Your task to perform on an android device: open app "Adobe Express: Graphic Design" Image 0: 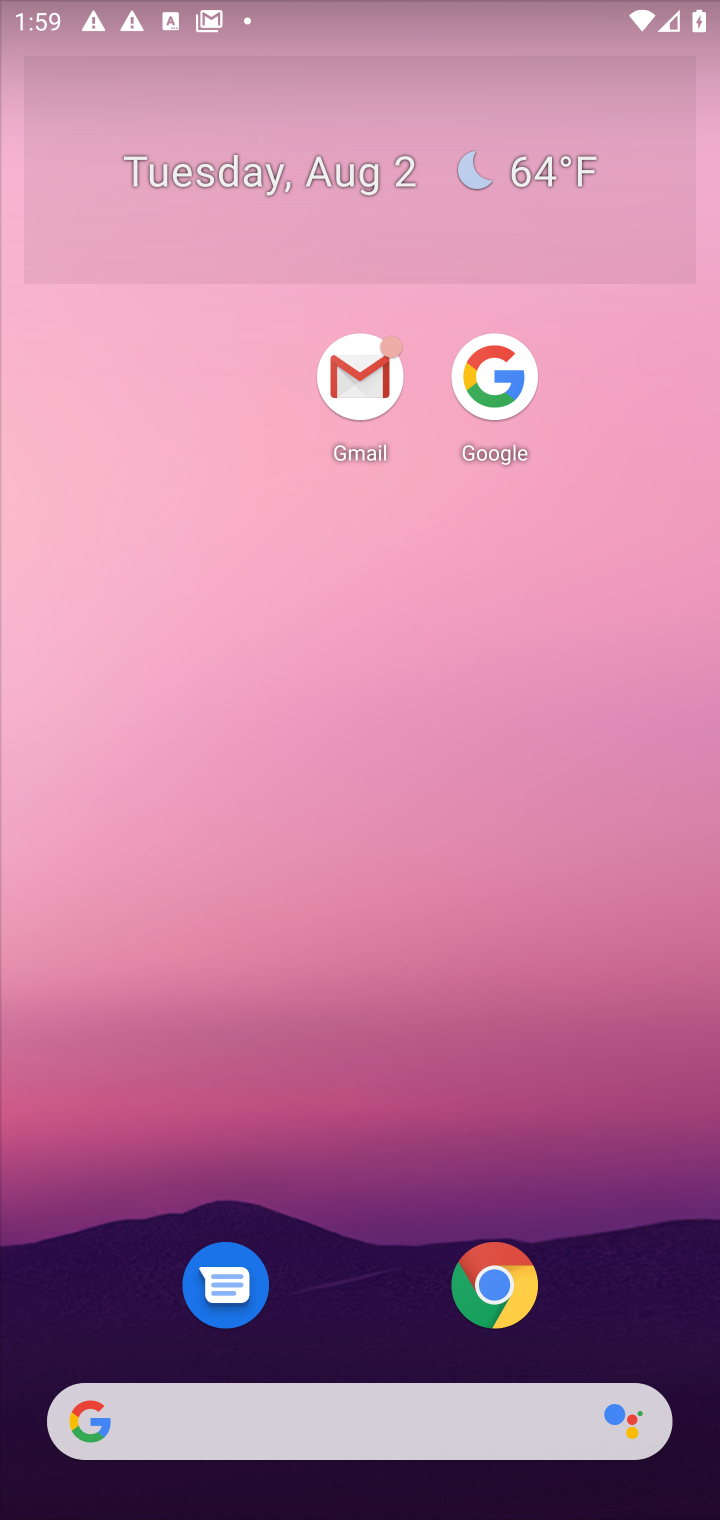
Step 0: drag from (288, 846) to (209, 187)
Your task to perform on an android device: open app "Adobe Express: Graphic Design" Image 1: 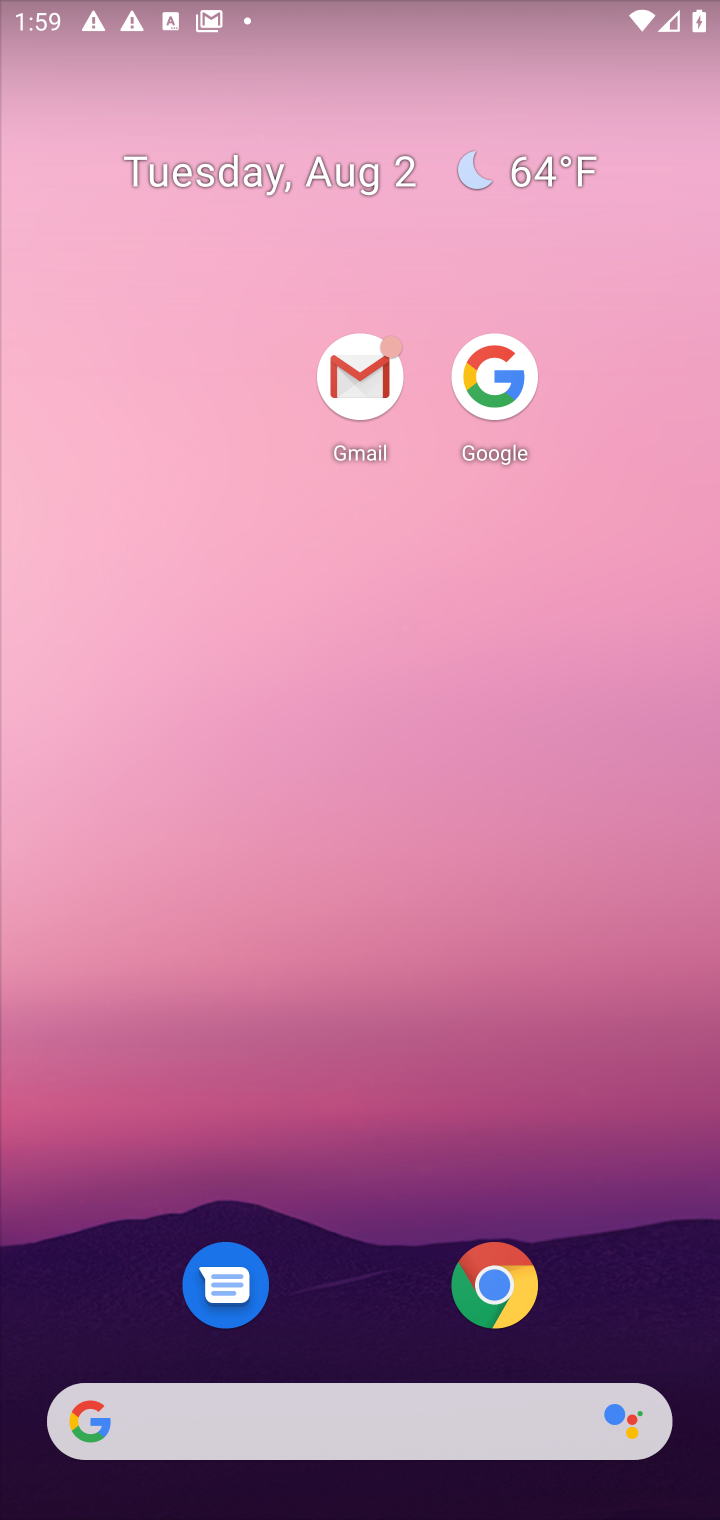
Step 1: drag from (363, 1080) to (441, 266)
Your task to perform on an android device: open app "Adobe Express: Graphic Design" Image 2: 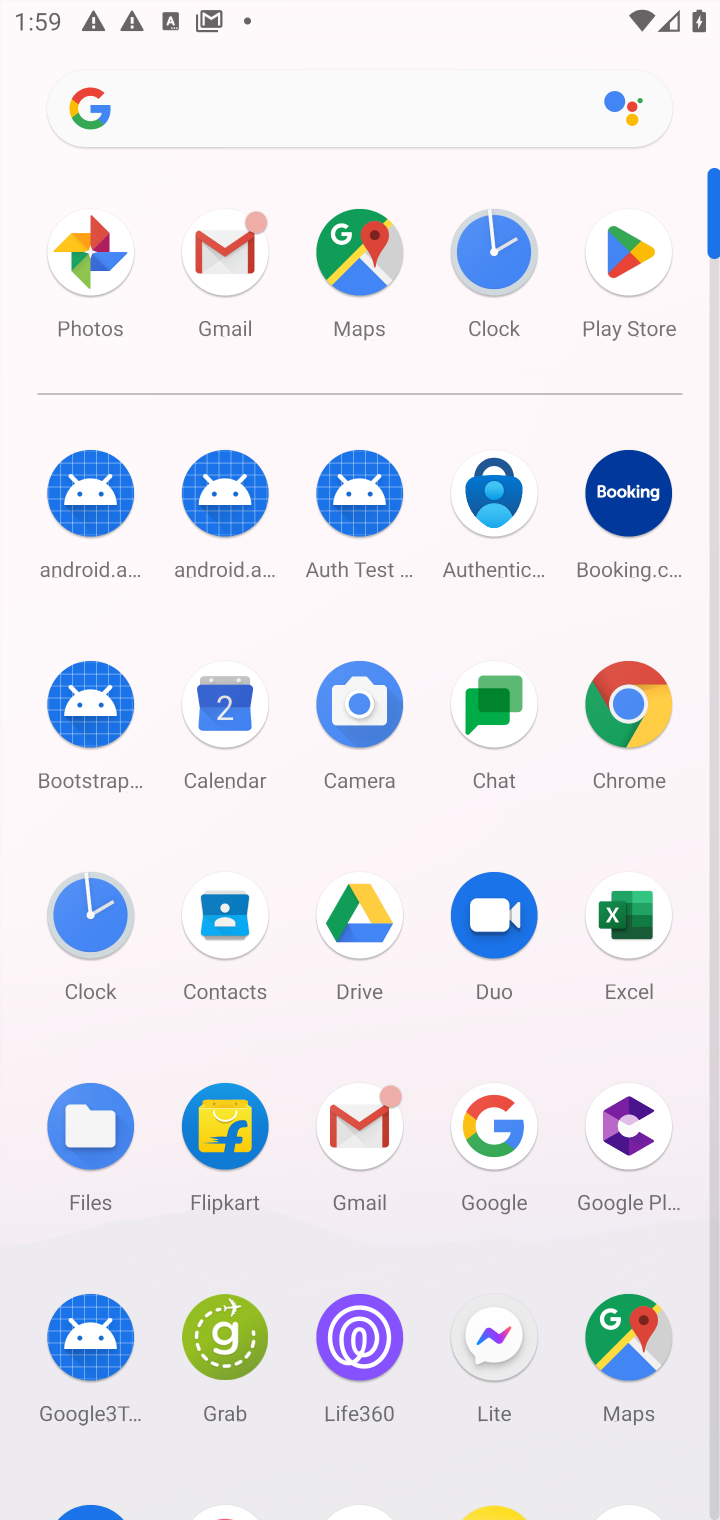
Step 2: drag from (414, 1177) to (461, 331)
Your task to perform on an android device: open app "Adobe Express: Graphic Design" Image 3: 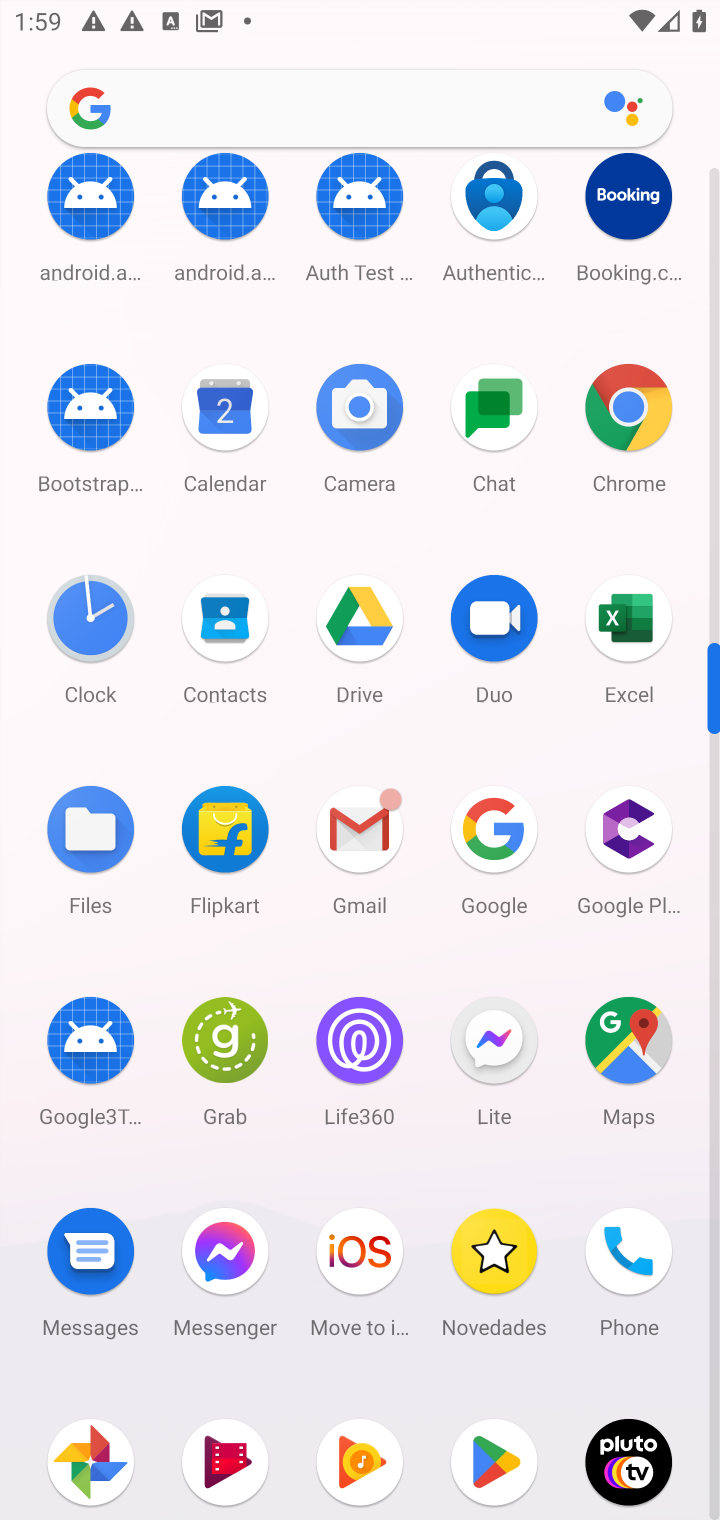
Step 3: click (476, 1470)
Your task to perform on an android device: open app "Adobe Express: Graphic Design" Image 4: 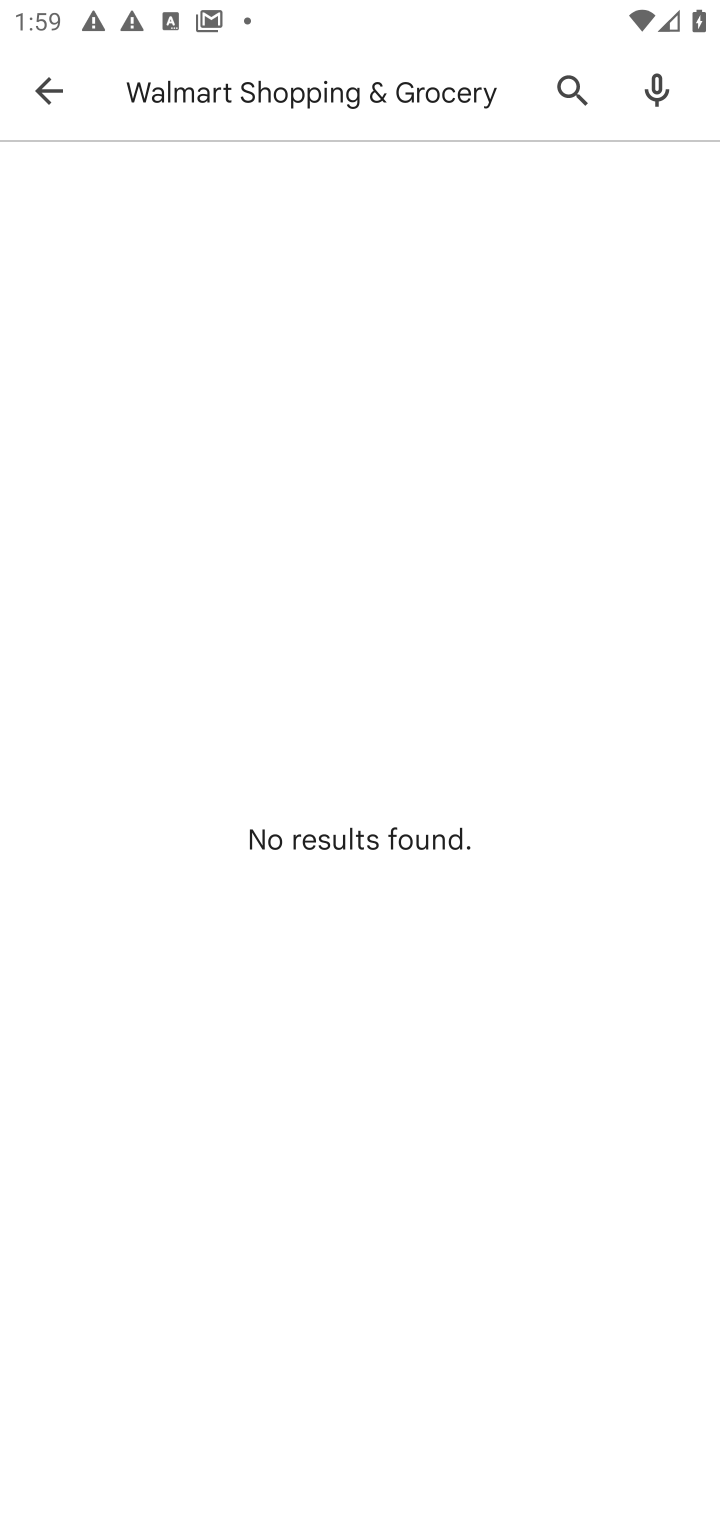
Step 4: click (470, 75)
Your task to perform on an android device: open app "Adobe Express: Graphic Design" Image 5: 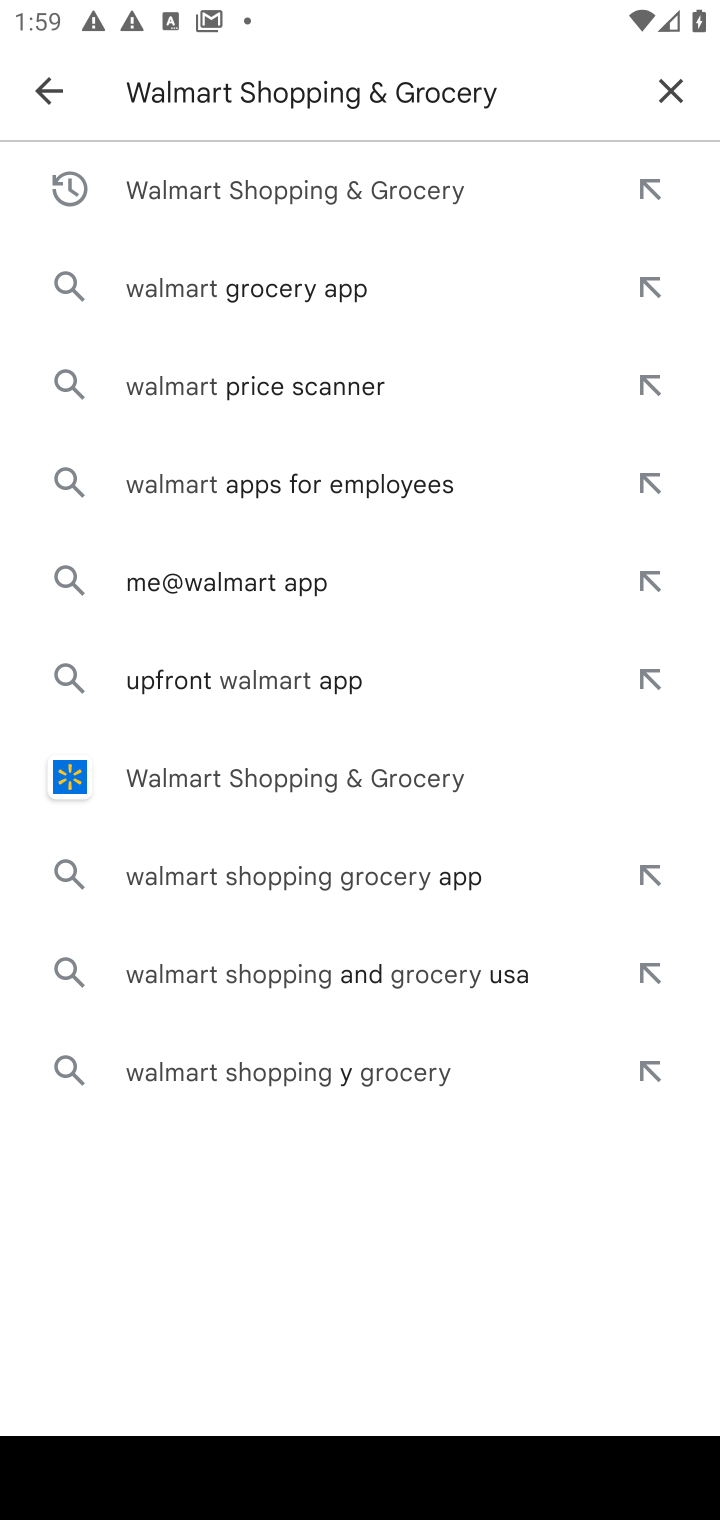
Step 5: click (686, 104)
Your task to perform on an android device: open app "Adobe Express: Graphic Design" Image 6: 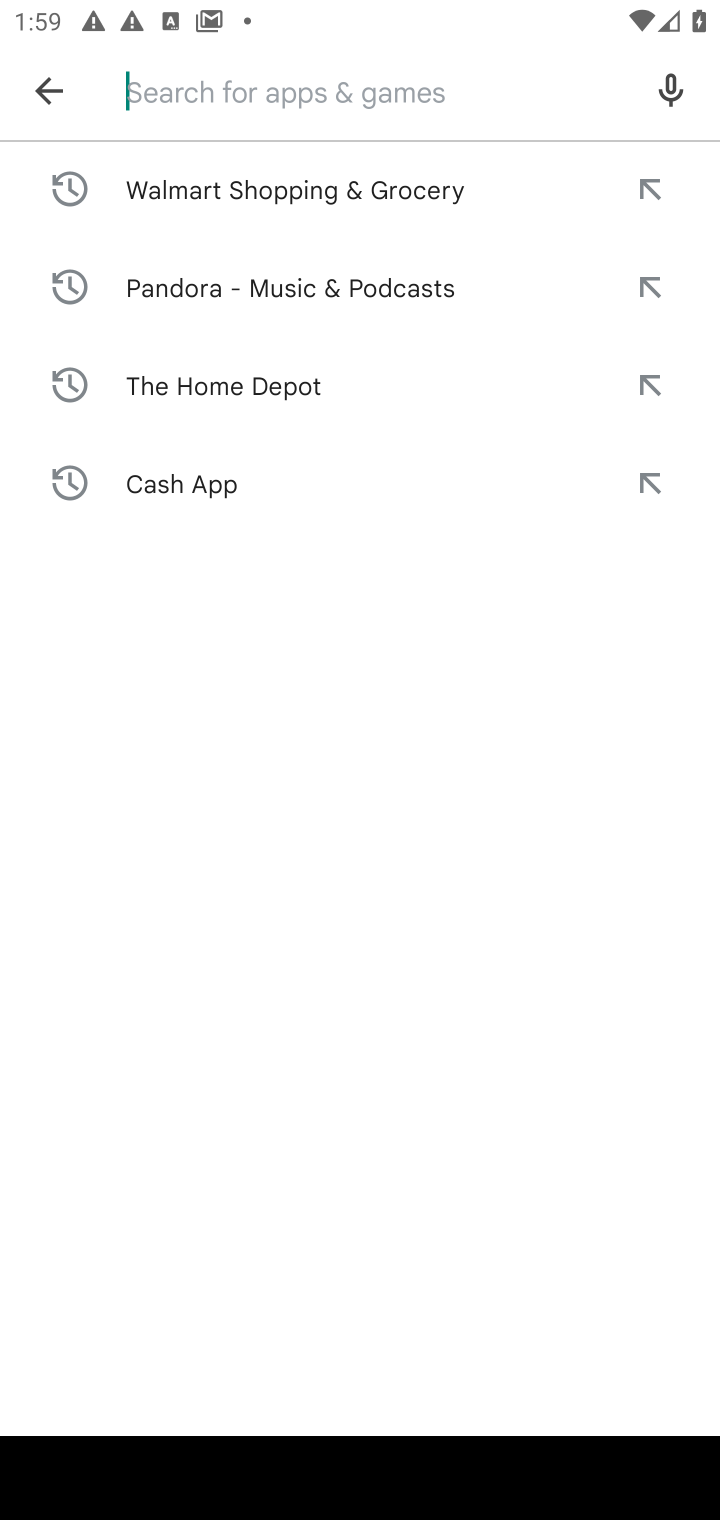
Step 6: type "Adobe Express: Graphic Design"
Your task to perform on an android device: open app "Adobe Express: Graphic Design" Image 7: 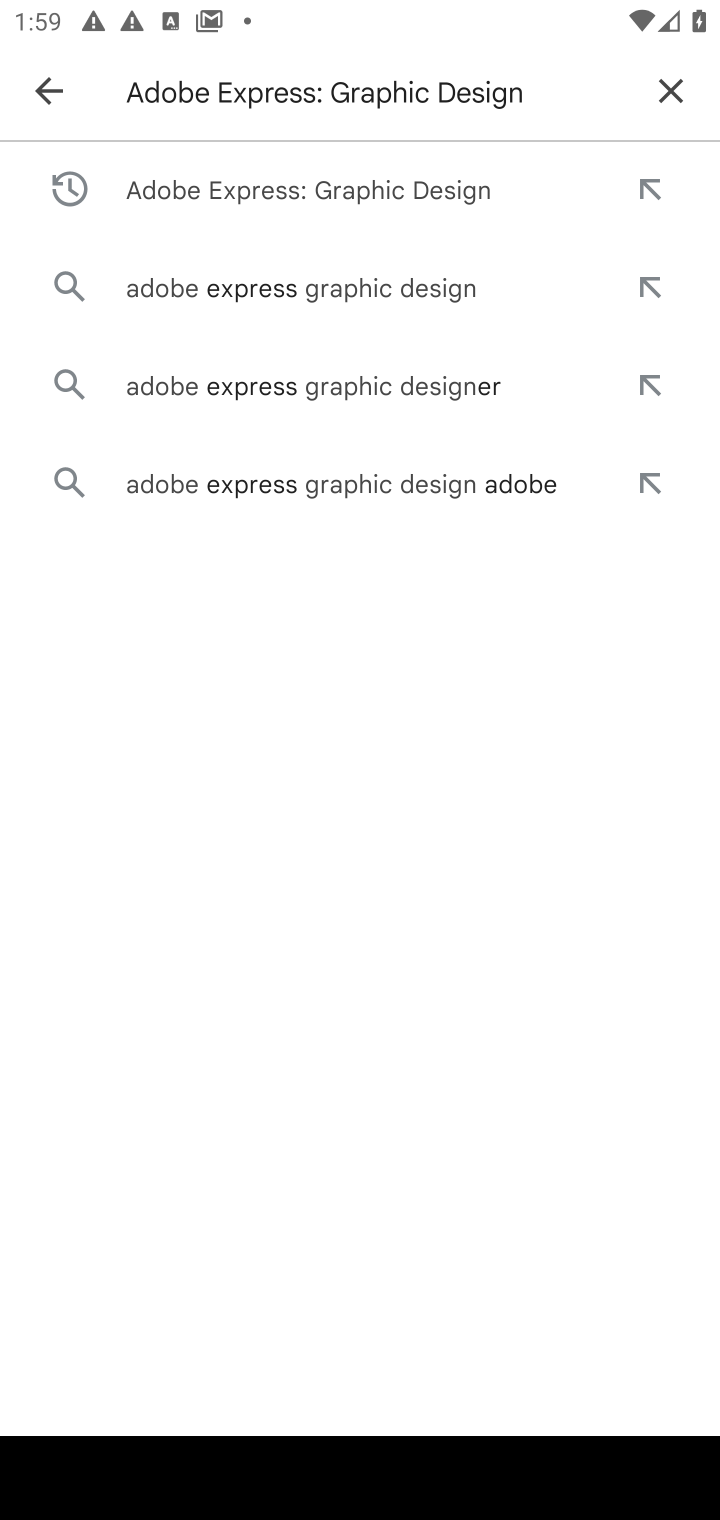
Step 7: press enter
Your task to perform on an android device: open app "Adobe Express: Graphic Design" Image 8: 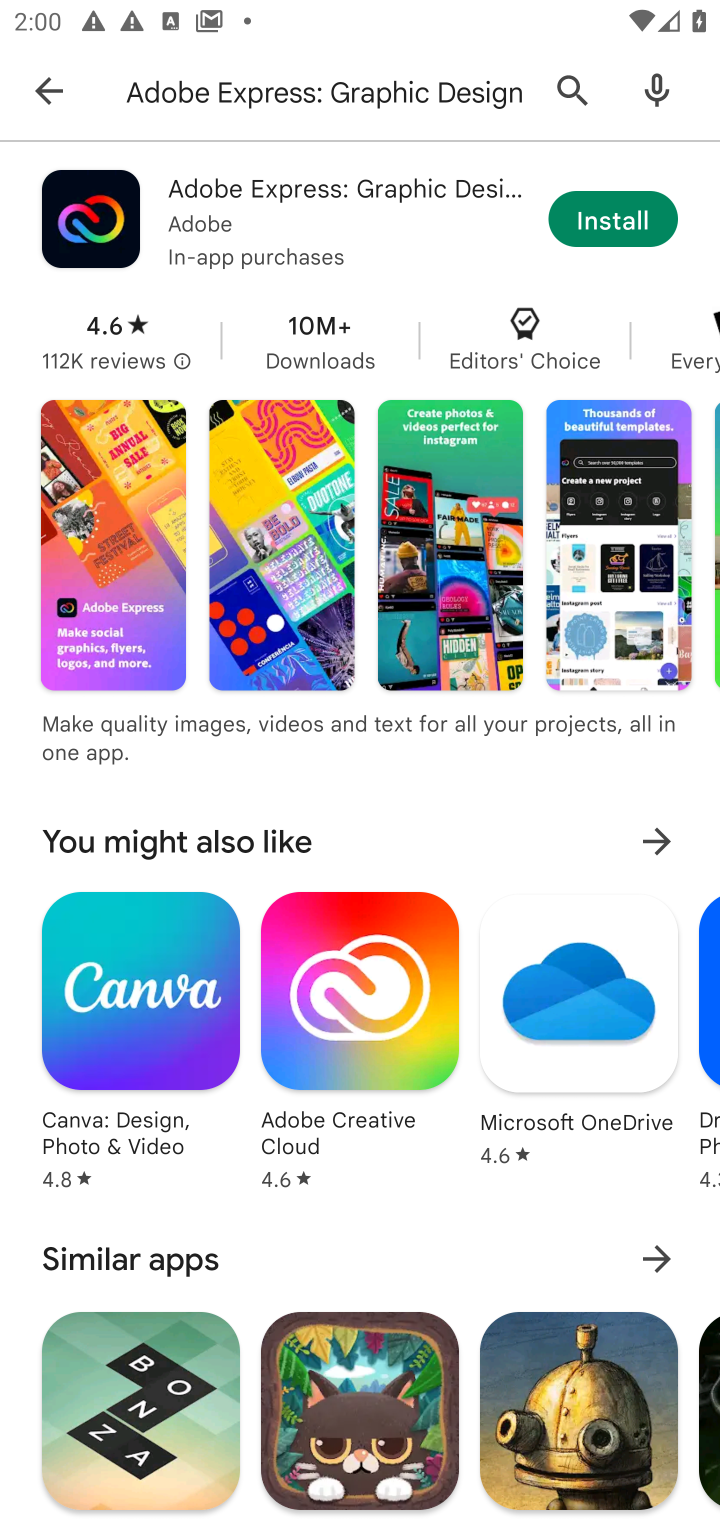
Step 8: click (250, 230)
Your task to perform on an android device: open app "Adobe Express: Graphic Design" Image 9: 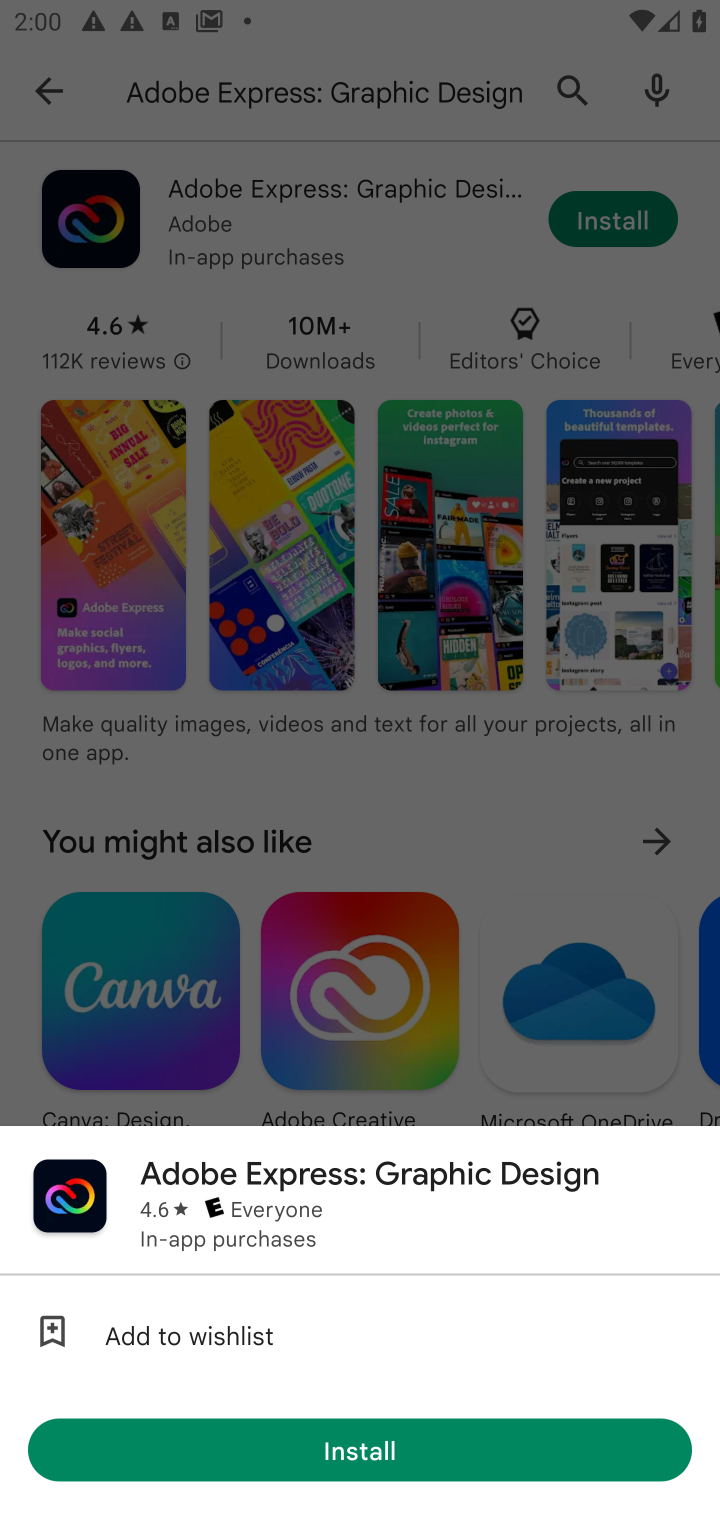
Step 9: task complete